Your task to perform on an android device: turn off translation in the chrome app Image 0: 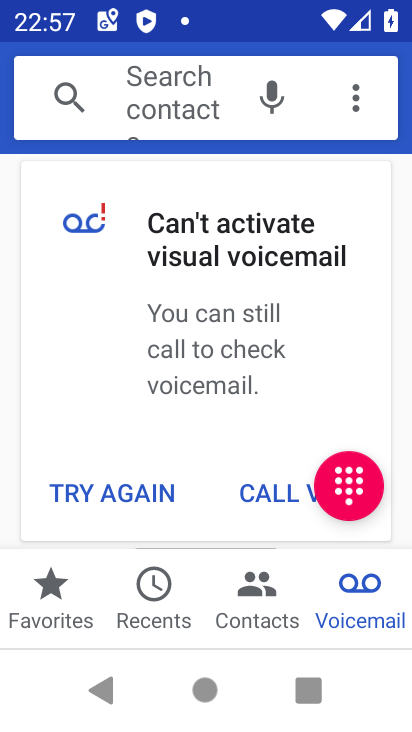
Step 0: press home button
Your task to perform on an android device: turn off translation in the chrome app Image 1: 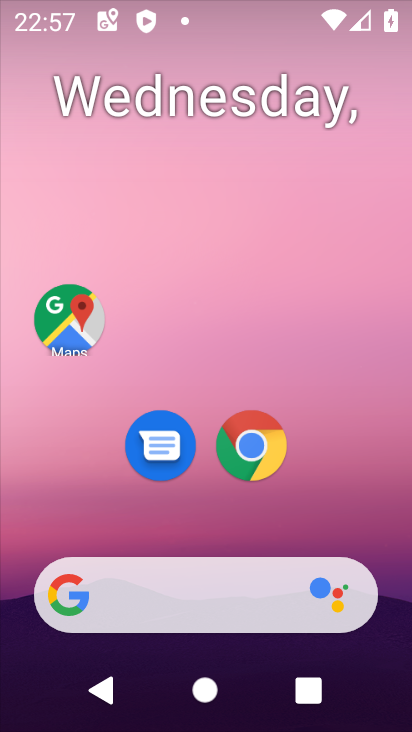
Step 1: drag from (146, 540) to (198, 238)
Your task to perform on an android device: turn off translation in the chrome app Image 2: 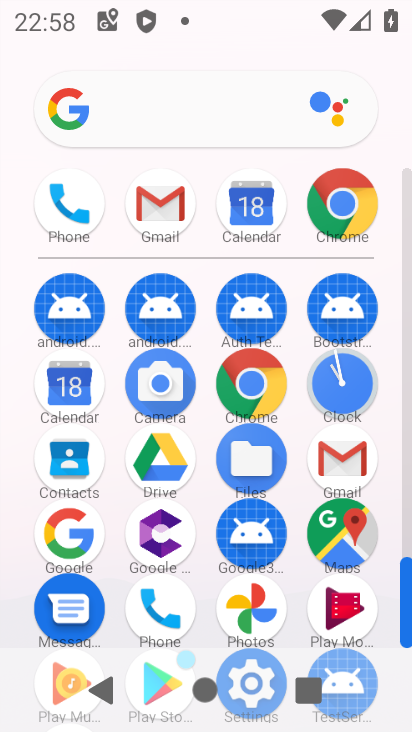
Step 2: click (255, 382)
Your task to perform on an android device: turn off translation in the chrome app Image 3: 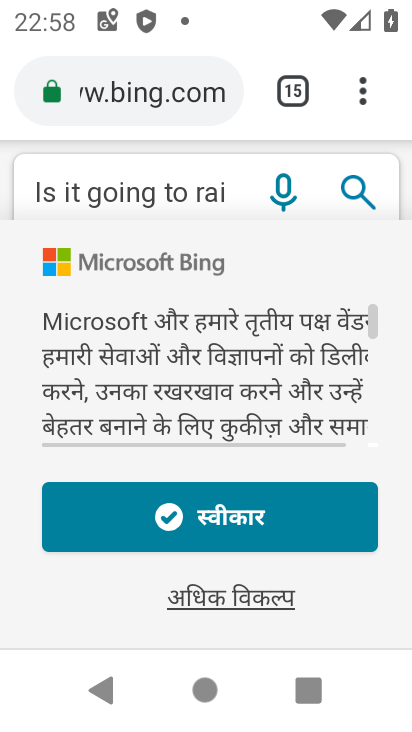
Step 3: click (347, 89)
Your task to perform on an android device: turn off translation in the chrome app Image 4: 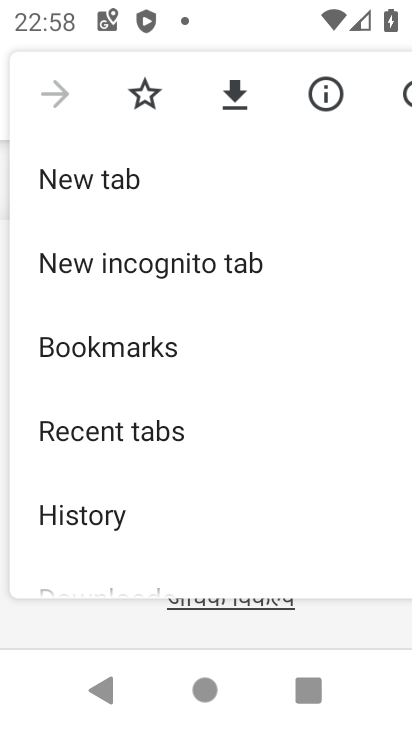
Step 4: drag from (220, 445) to (280, 175)
Your task to perform on an android device: turn off translation in the chrome app Image 5: 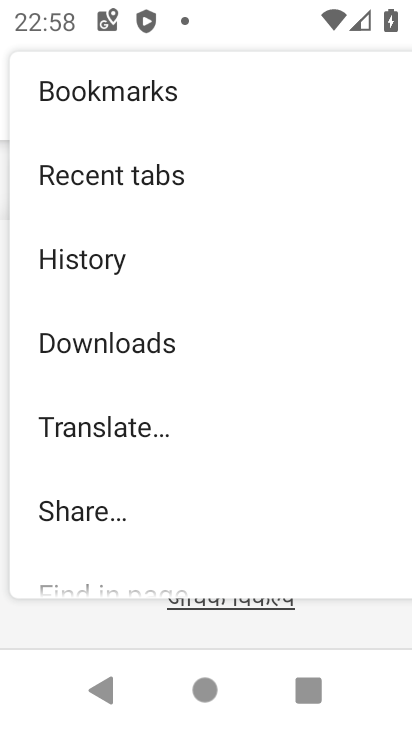
Step 5: drag from (171, 526) to (246, 202)
Your task to perform on an android device: turn off translation in the chrome app Image 6: 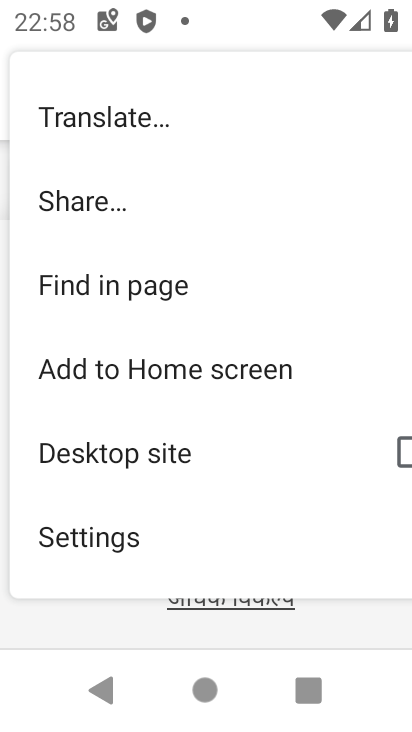
Step 6: click (88, 554)
Your task to perform on an android device: turn off translation in the chrome app Image 7: 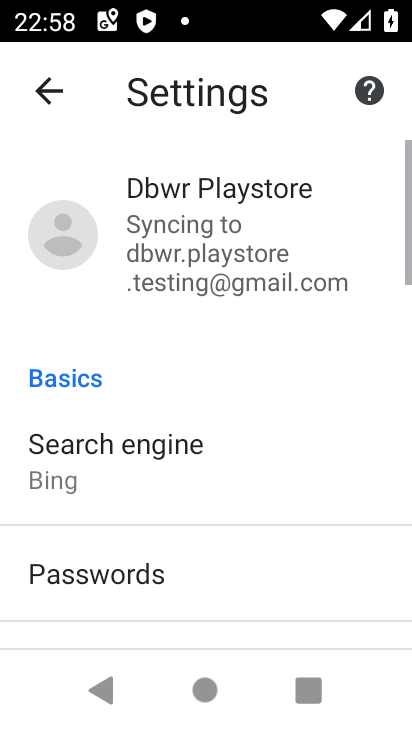
Step 7: drag from (177, 491) to (219, 82)
Your task to perform on an android device: turn off translation in the chrome app Image 8: 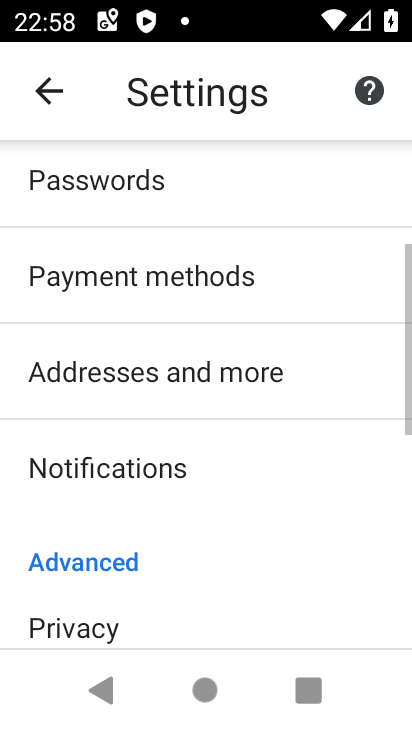
Step 8: drag from (122, 535) to (205, 196)
Your task to perform on an android device: turn off translation in the chrome app Image 9: 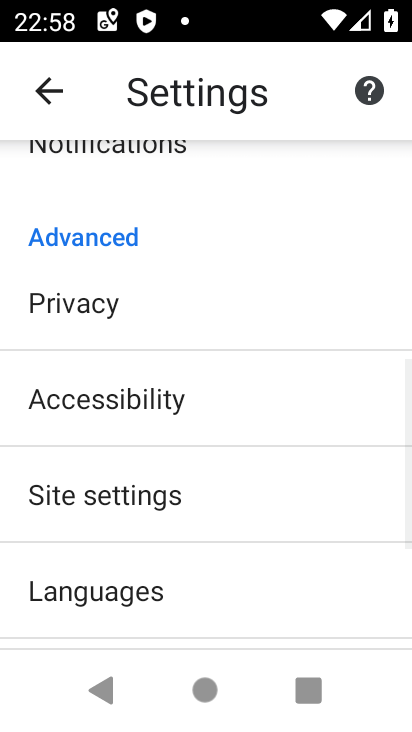
Step 9: drag from (199, 546) to (212, 405)
Your task to perform on an android device: turn off translation in the chrome app Image 10: 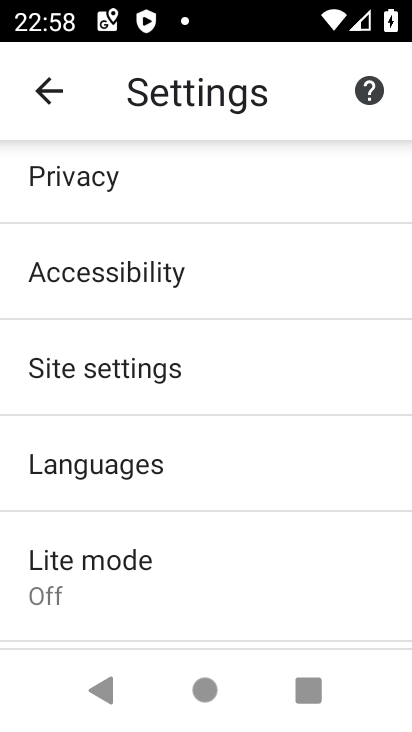
Step 10: click (167, 478)
Your task to perform on an android device: turn off translation in the chrome app Image 11: 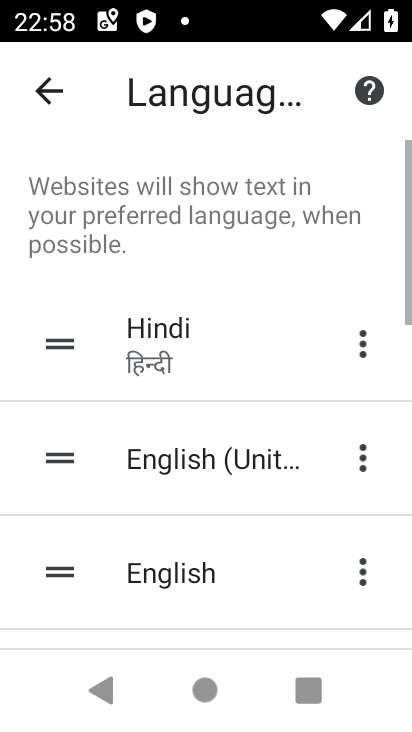
Step 11: task complete